Your task to perform on an android device: turn off wifi Image 0: 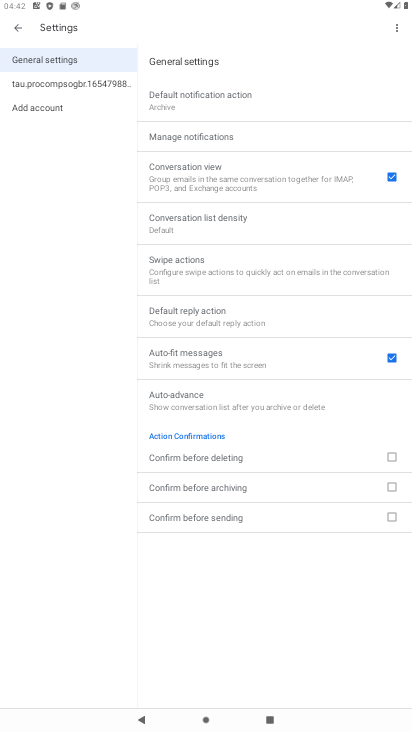
Step 0: drag from (146, 10) to (146, 540)
Your task to perform on an android device: turn off wifi Image 1: 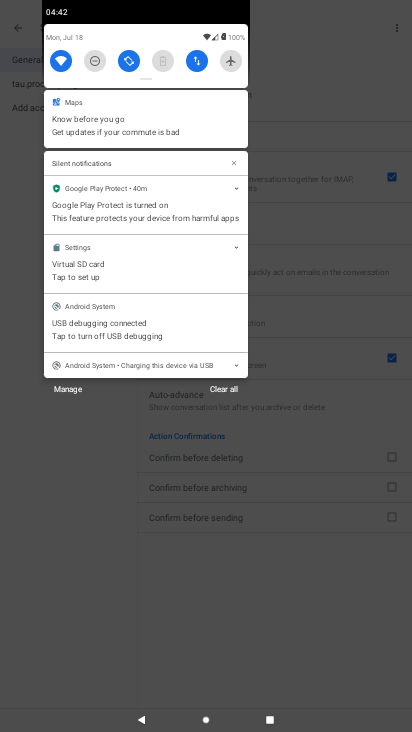
Step 1: click (55, 61)
Your task to perform on an android device: turn off wifi Image 2: 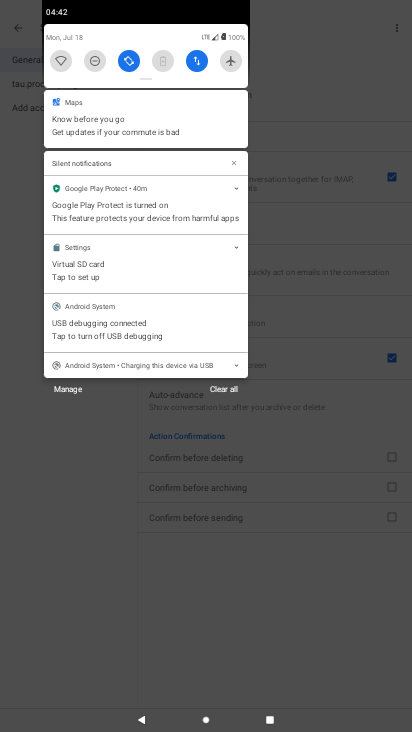
Step 2: task complete